Your task to perform on an android device: Open location settings Image 0: 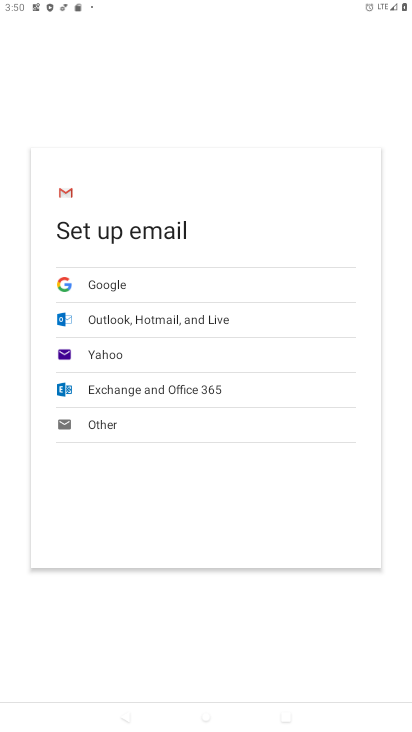
Step 0: press home button
Your task to perform on an android device: Open location settings Image 1: 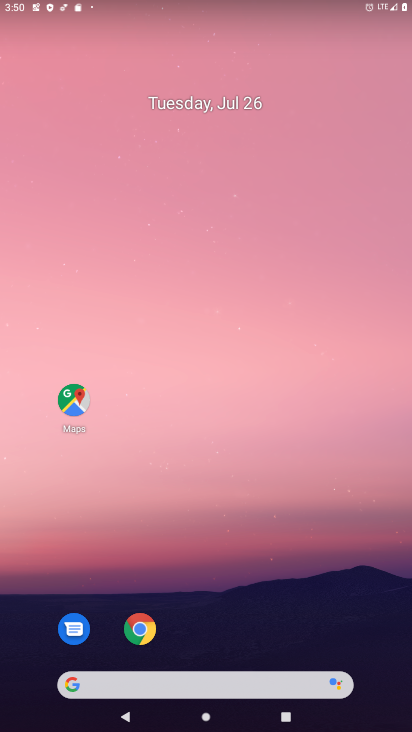
Step 1: drag from (240, 726) to (239, 325)
Your task to perform on an android device: Open location settings Image 2: 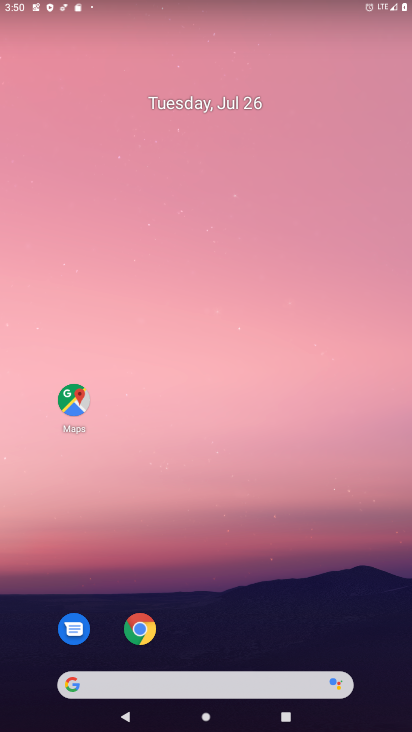
Step 2: drag from (236, 726) to (230, 33)
Your task to perform on an android device: Open location settings Image 3: 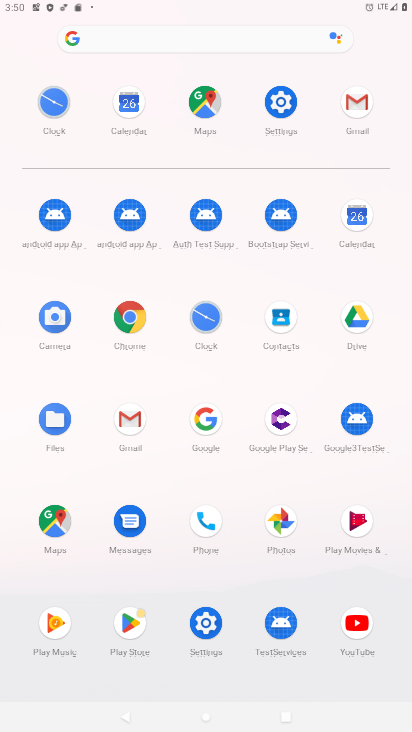
Step 3: click (286, 111)
Your task to perform on an android device: Open location settings Image 4: 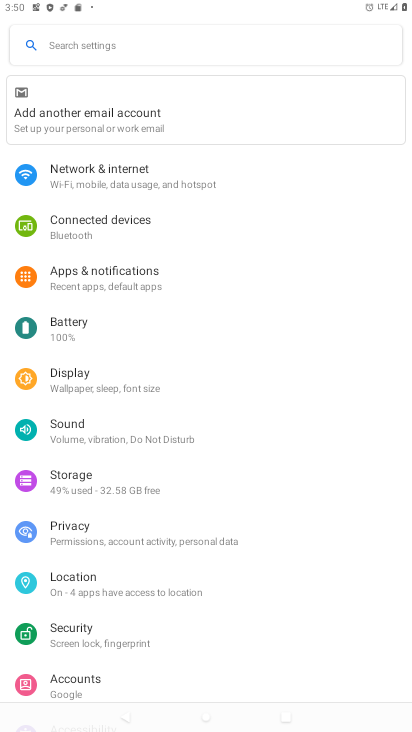
Step 4: click (66, 587)
Your task to perform on an android device: Open location settings Image 5: 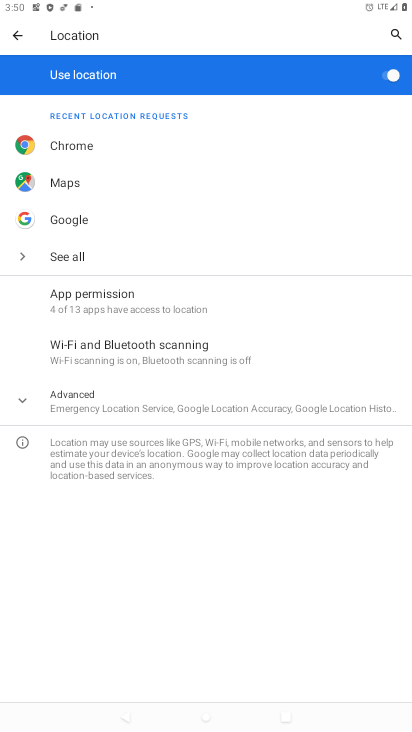
Step 5: task complete